Your task to perform on an android device: turn off javascript in the chrome app Image 0: 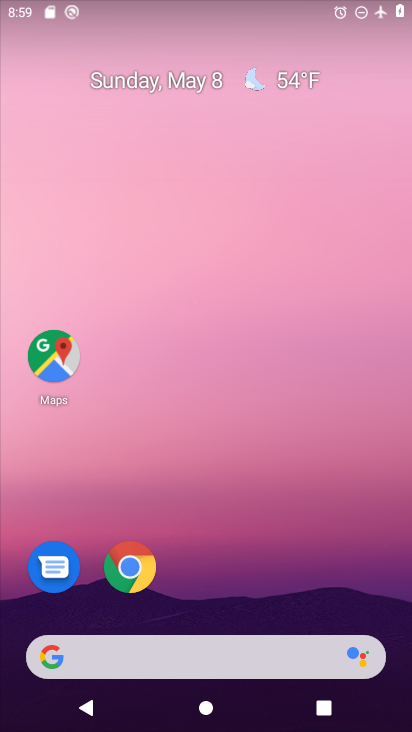
Step 0: click (112, 567)
Your task to perform on an android device: turn off javascript in the chrome app Image 1: 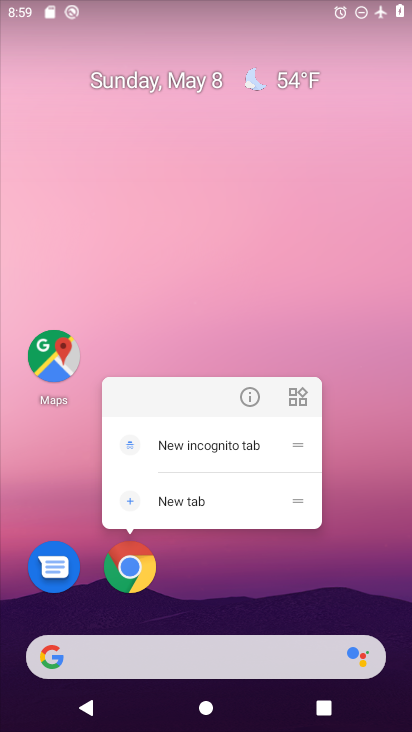
Step 1: click (130, 585)
Your task to perform on an android device: turn off javascript in the chrome app Image 2: 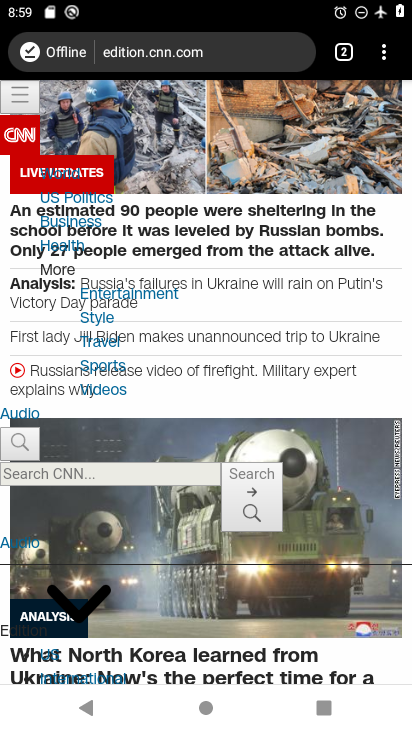
Step 2: drag from (382, 62) to (234, 567)
Your task to perform on an android device: turn off javascript in the chrome app Image 3: 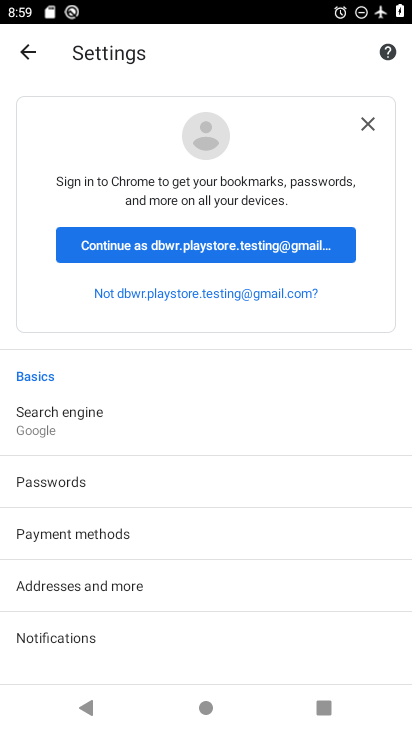
Step 3: drag from (140, 597) to (105, 264)
Your task to perform on an android device: turn off javascript in the chrome app Image 4: 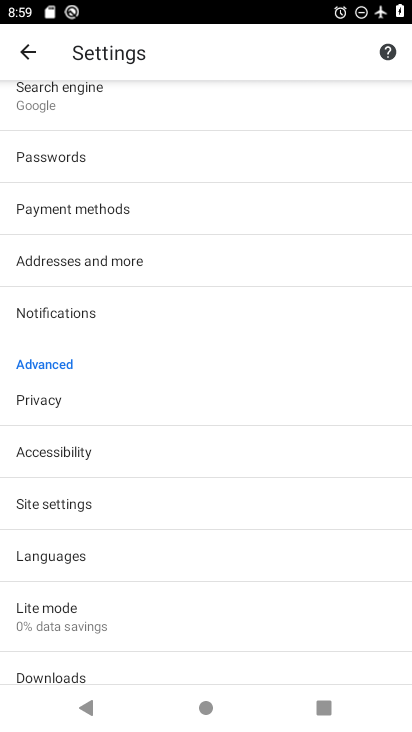
Step 4: click (73, 500)
Your task to perform on an android device: turn off javascript in the chrome app Image 5: 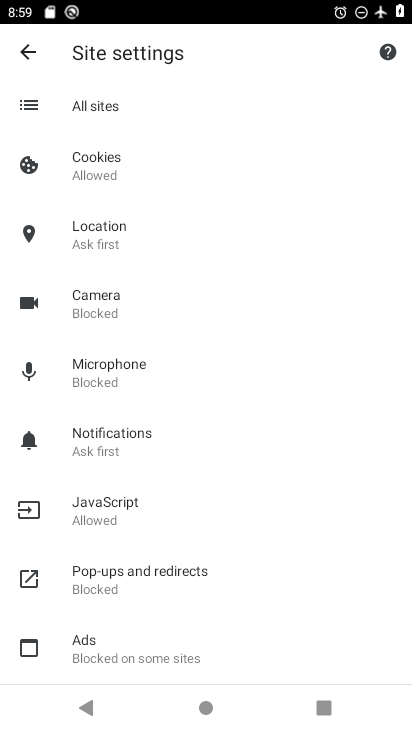
Step 5: click (126, 502)
Your task to perform on an android device: turn off javascript in the chrome app Image 6: 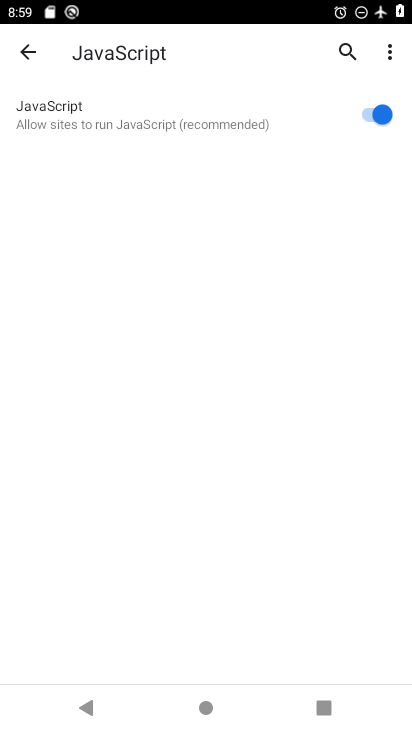
Step 6: click (379, 121)
Your task to perform on an android device: turn off javascript in the chrome app Image 7: 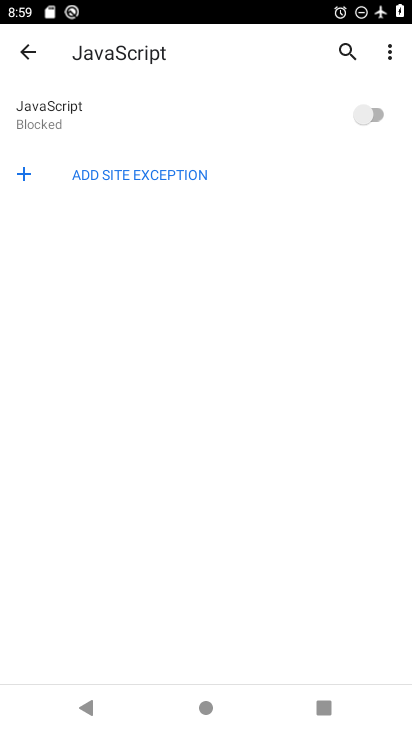
Step 7: task complete